Your task to perform on an android device: create a new album in the google photos Image 0: 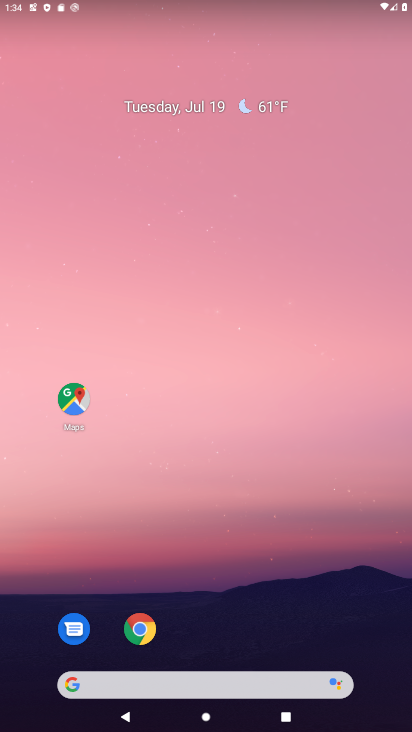
Step 0: drag from (193, 683) to (186, 223)
Your task to perform on an android device: create a new album in the google photos Image 1: 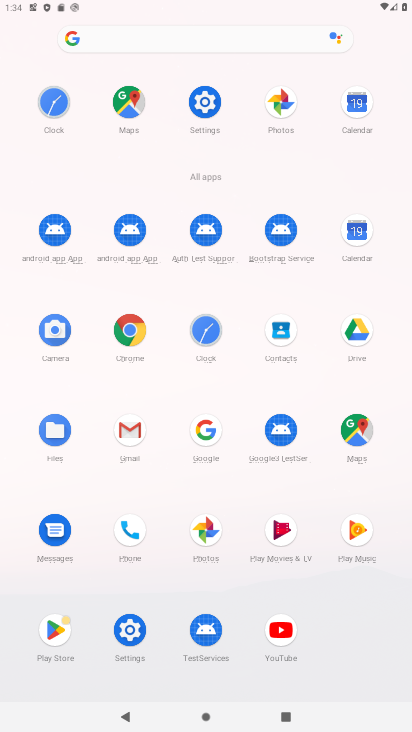
Step 1: click (199, 540)
Your task to perform on an android device: create a new album in the google photos Image 2: 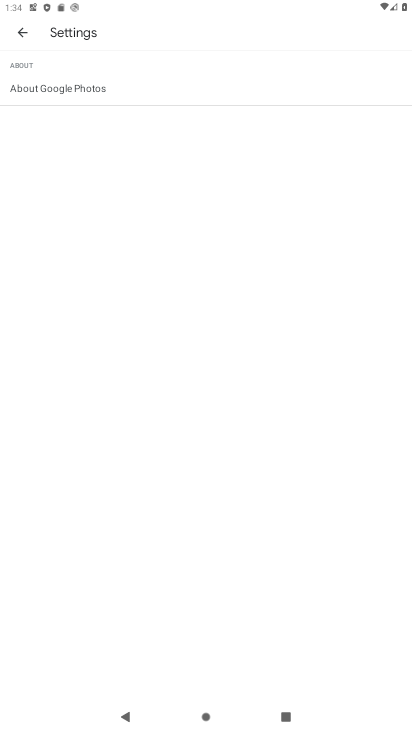
Step 2: click (22, 32)
Your task to perform on an android device: create a new album in the google photos Image 3: 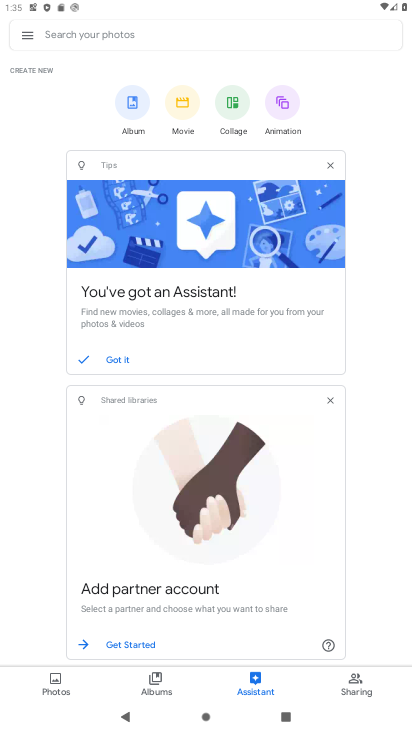
Step 3: click (136, 103)
Your task to perform on an android device: create a new album in the google photos Image 4: 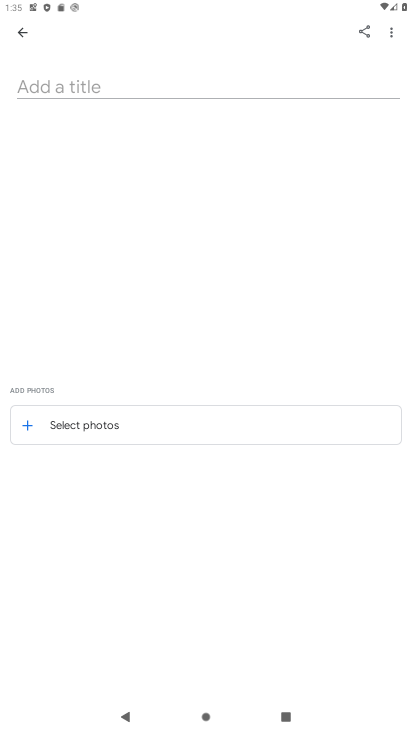
Step 4: click (154, 85)
Your task to perform on an android device: create a new album in the google photos Image 5: 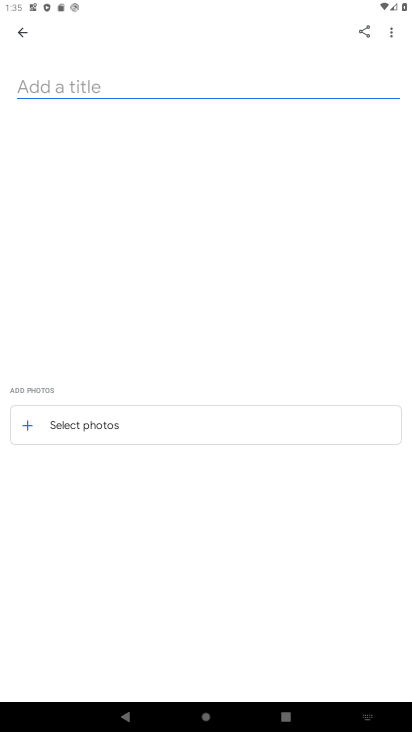
Step 5: type "hvh"
Your task to perform on an android device: create a new album in the google photos Image 6: 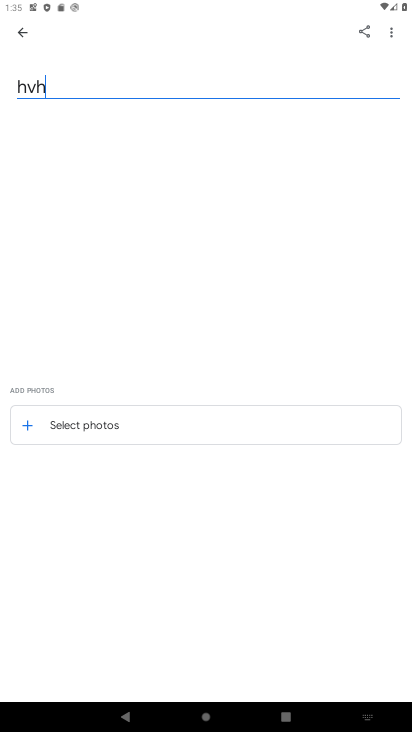
Step 6: click (221, 424)
Your task to perform on an android device: create a new album in the google photos Image 7: 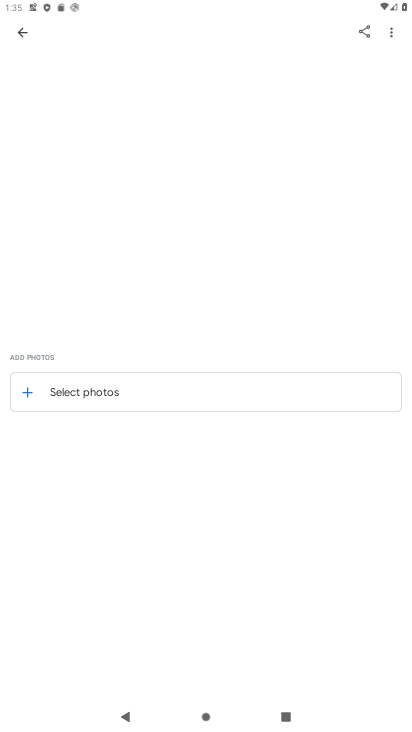
Step 7: click (194, 408)
Your task to perform on an android device: create a new album in the google photos Image 8: 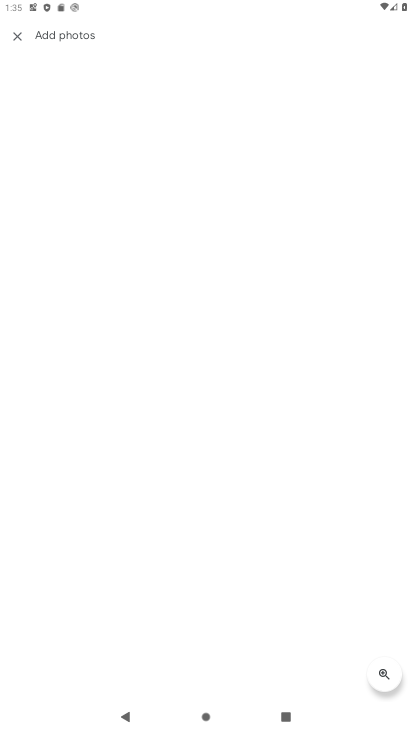
Step 8: task complete